Your task to perform on an android device: open a new tab in the chrome app Image 0: 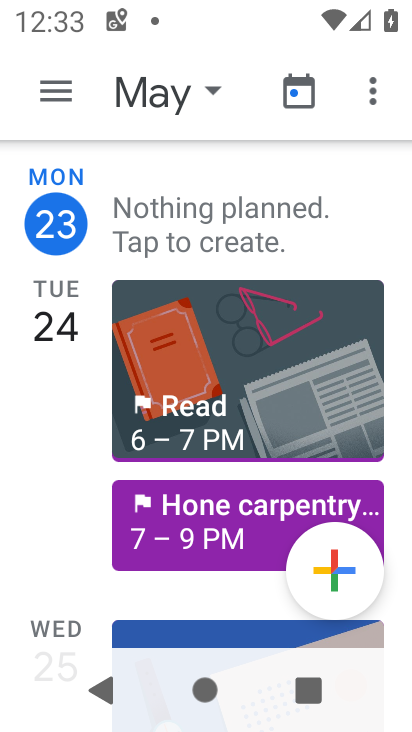
Step 0: press back button
Your task to perform on an android device: open a new tab in the chrome app Image 1: 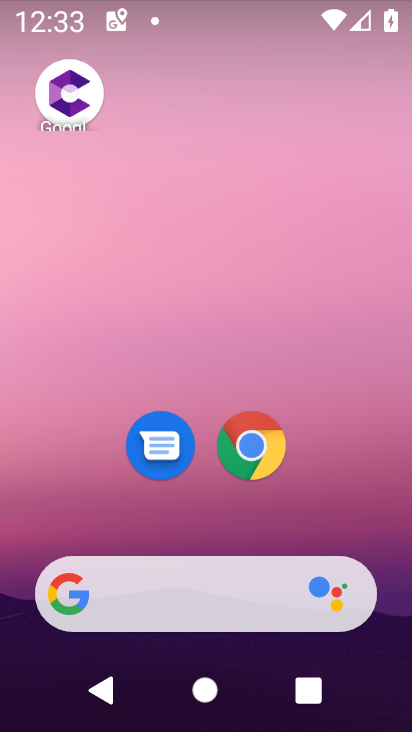
Step 1: click (253, 445)
Your task to perform on an android device: open a new tab in the chrome app Image 2: 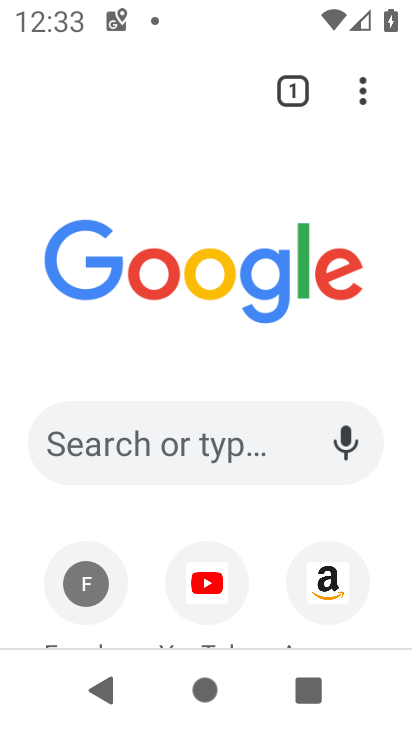
Step 2: click (361, 88)
Your task to perform on an android device: open a new tab in the chrome app Image 3: 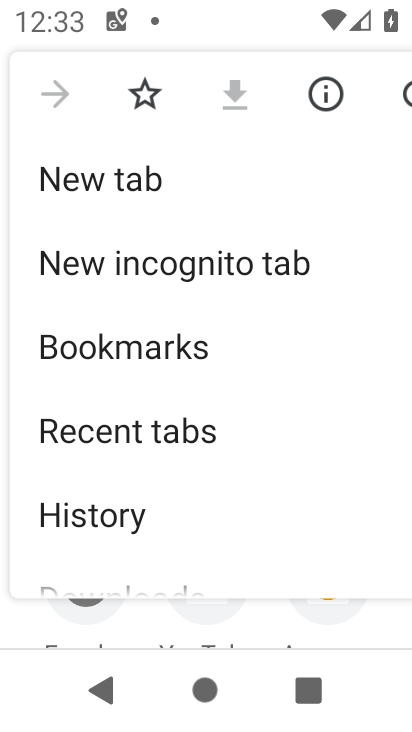
Step 3: click (112, 181)
Your task to perform on an android device: open a new tab in the chrome app Image 4: 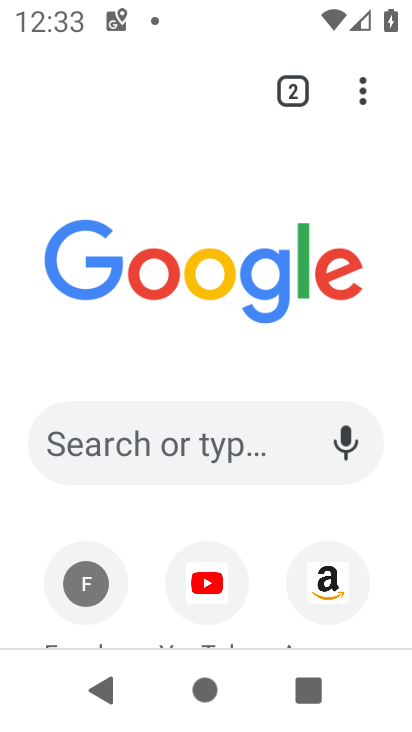
Step 4: task complete